Your task to perform on an android device: Go to battery settings Image 0: 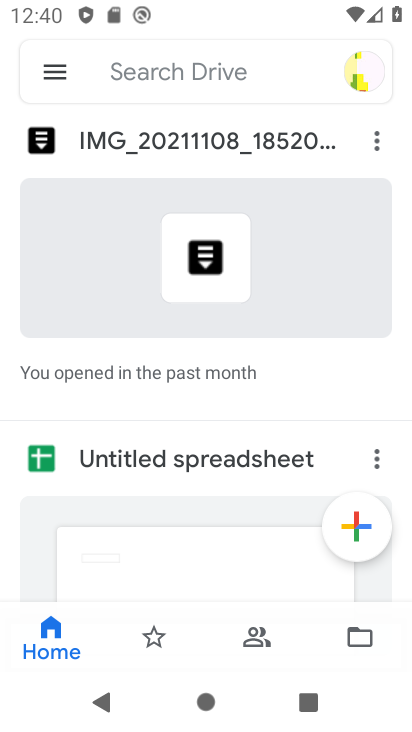
Step 0: press home button
Your task to perform on an android device: Go to battery settings Image 1: 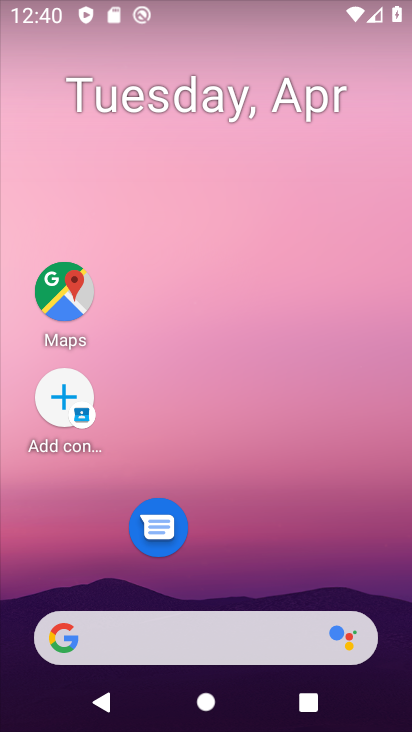
Step 1: drag from (219, 557) to (245, 49)
Your task to perform on an android device: Go to battery settings Image 2: 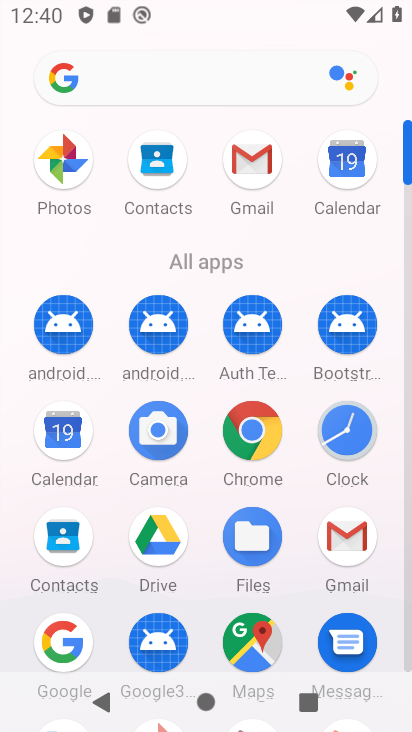
Step 2: drag from (192, 459) to (219, 230)
Your task to perform on an android device: Go to battery settings Image 3: 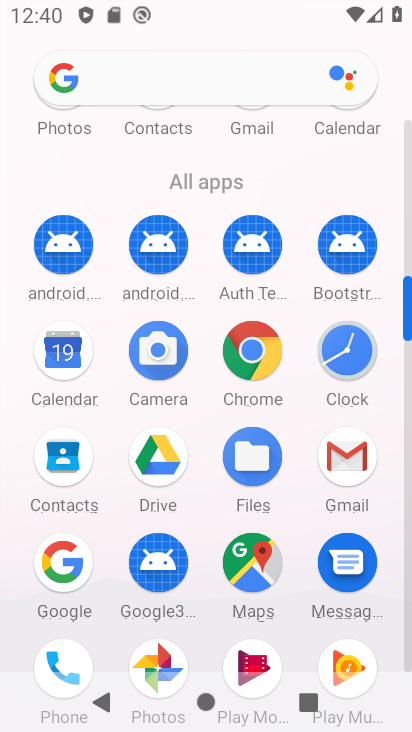
Step 3: drag from (208, 602) to (218, 258)
Your task to perform on an android device: Go to battery settings Image 4: 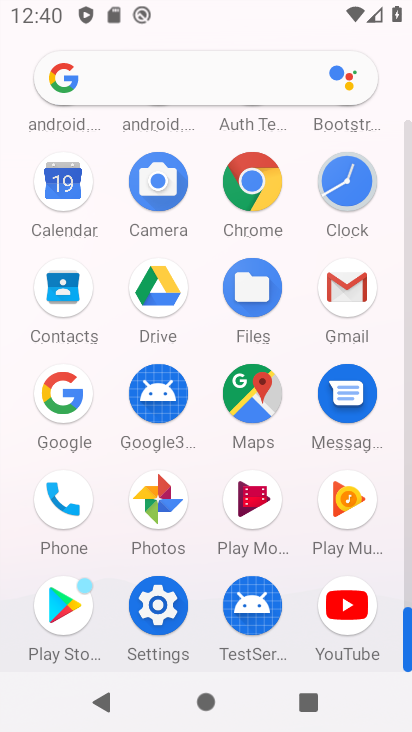
Step 4: click (155, 601)
Your task to perform on an android device: Go to battery settings Image 5: 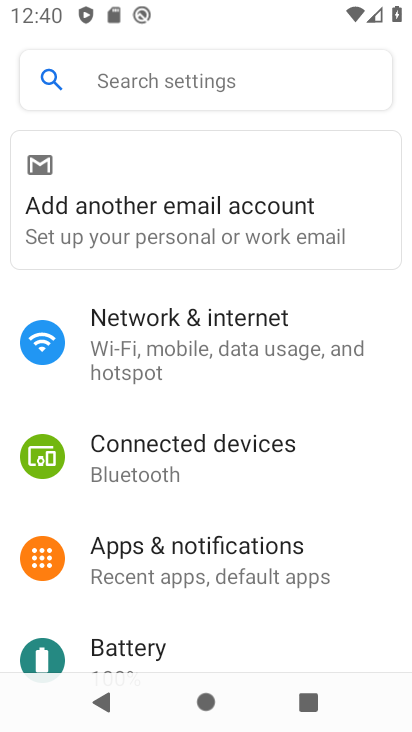
Step 5: drag from (173, 519) to (201, 357)
Your task to perform on an android device: Go to battery settings Image 6: 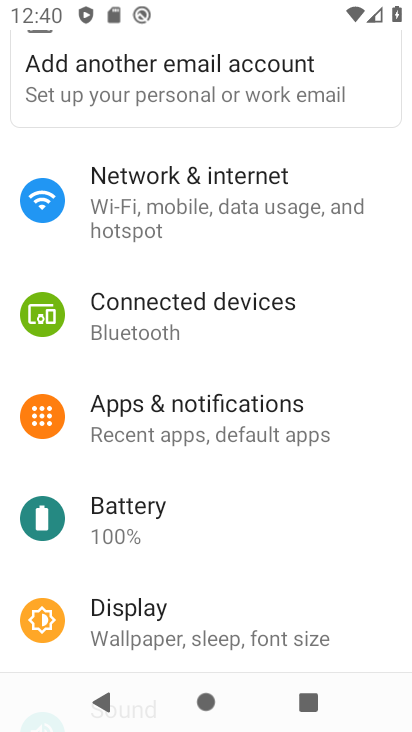
Step 6: click (152, 516)
Your task to perform on an android device: Go to battery settings Image 7: 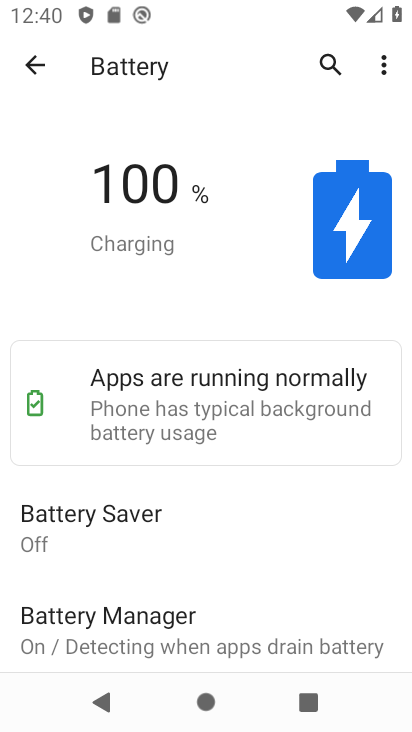
Step 7: task complete